Your task to perform on an android device: Search for a 3D printer on aliexpress. Image 0: 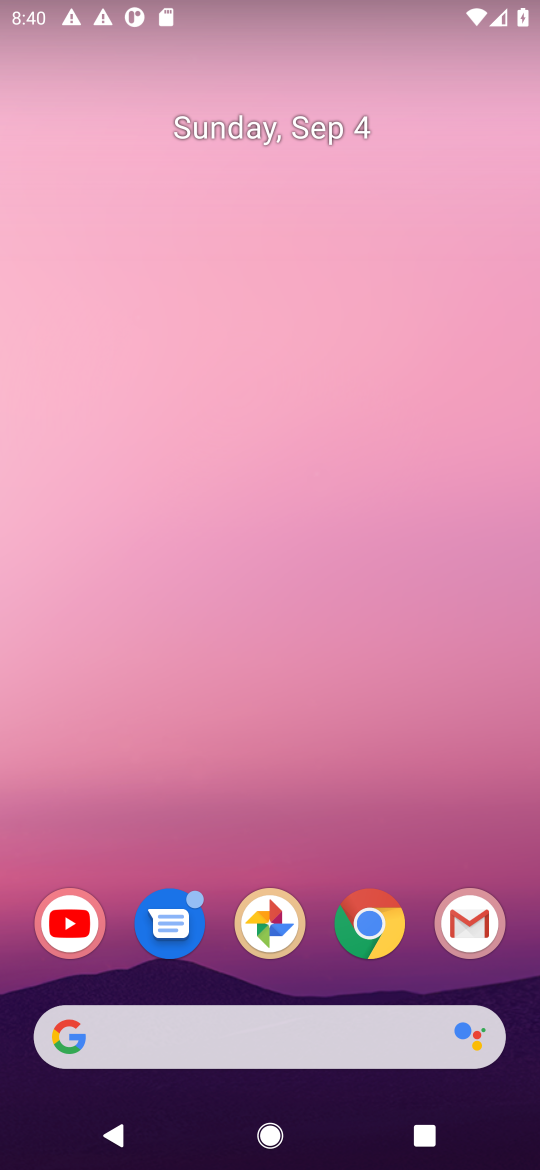
Step 0: click (385, 908)
Your task to perform on an android device: Search for a 3D printer on aliexpress. Image 1: 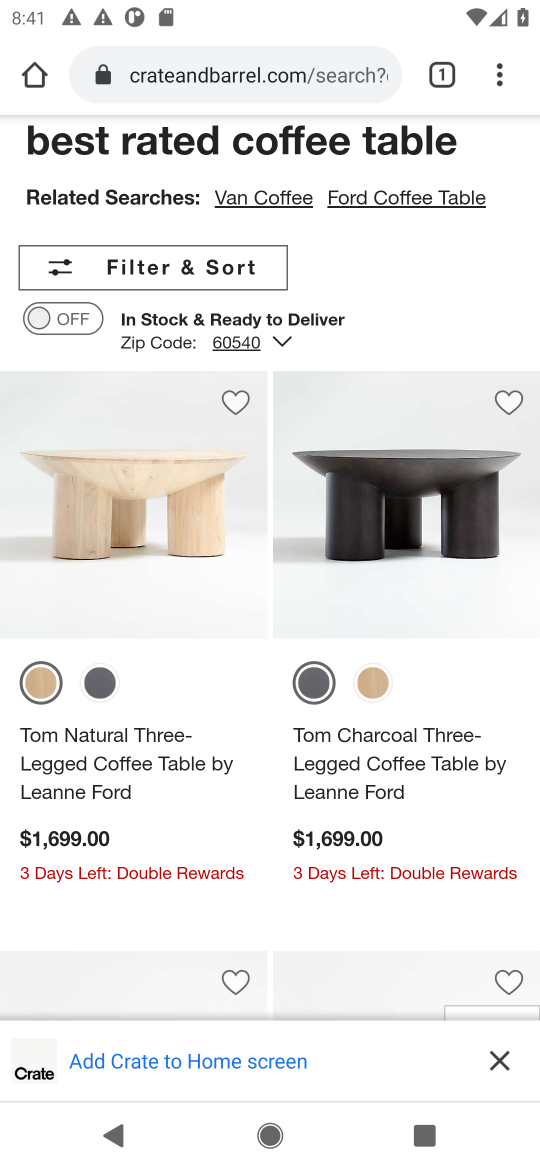
Step 1: click (272, 56)
Your task to perform on an android device: Search for a 3D printer on aliexpress. Image 2: 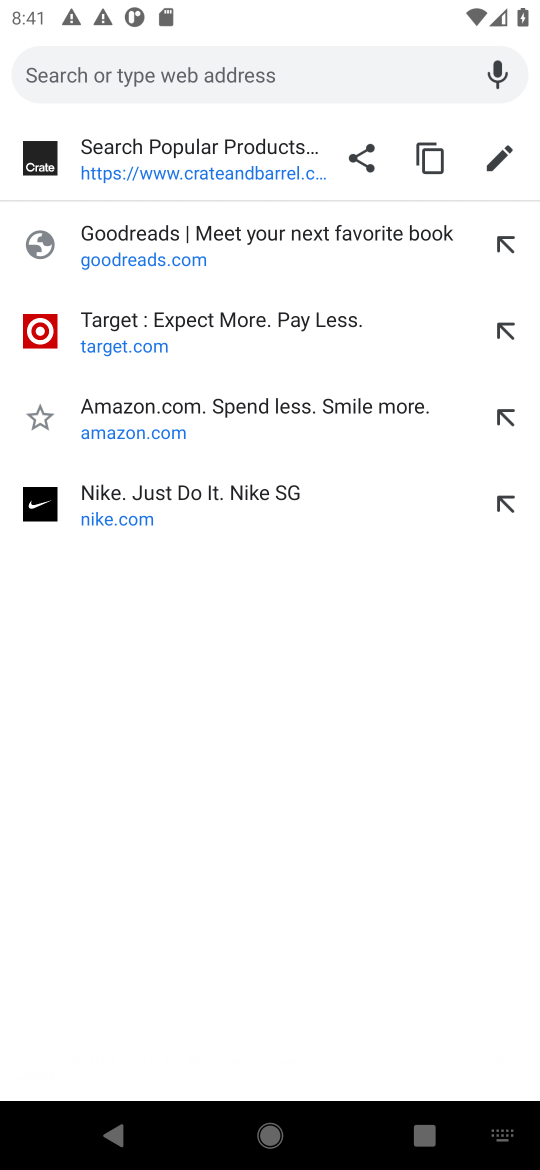
Step 2: type "aliexpress"
Your task to perform on an android device: Search for a 3D printer on aliexpress. Image 3: 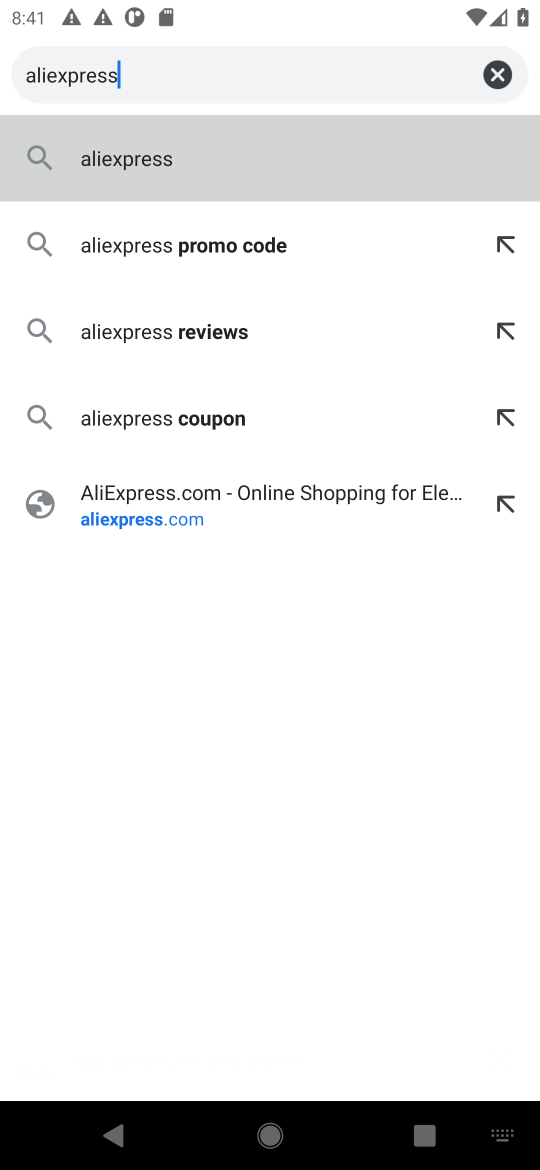
Step 3: click (215, 505)
Your task to perform on an android device: Search for a 3D printer on aliexpress. Image 4: 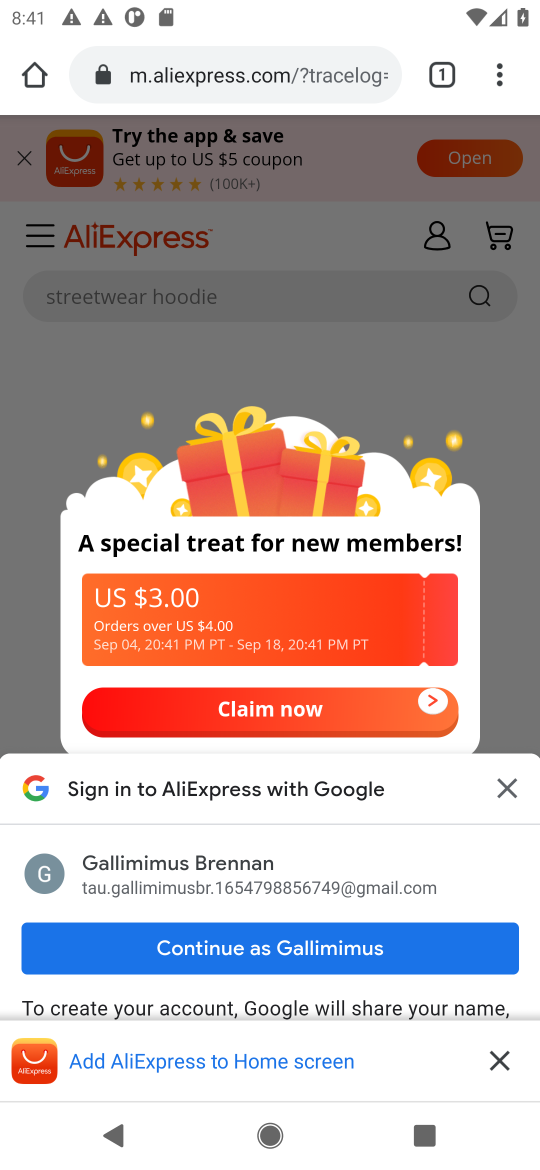
Step 4: click (323, 943)
Your task to perform on an android device: Search for a 3D printer on aliexpress. Image 5: 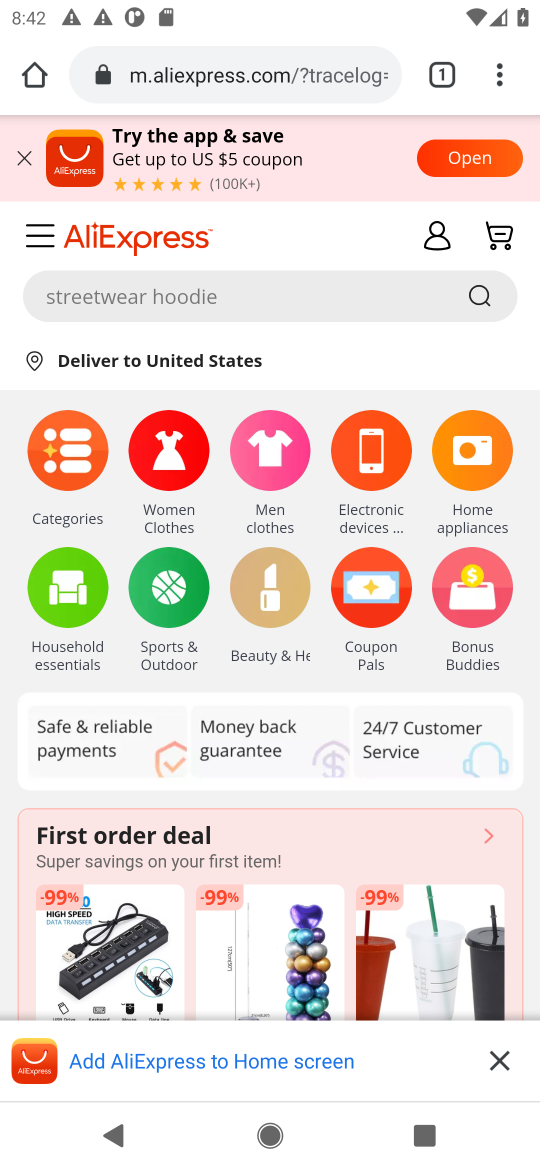
Step 5: click (472, 298)
Your task to perform on an android device: Search for a 3D printer on aliexpress. Image 6: 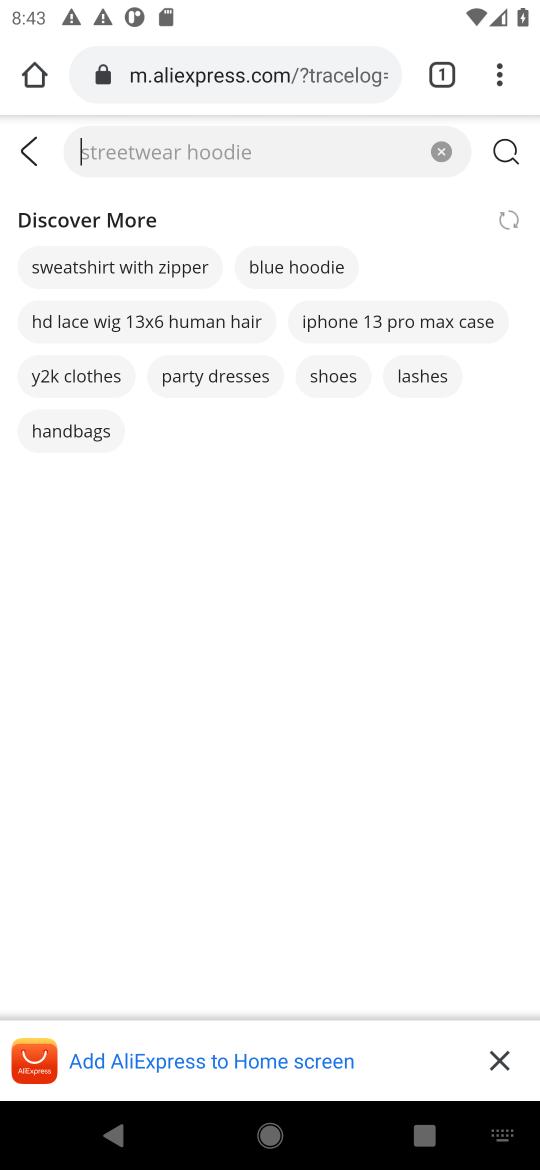
Step 6: type "3d printer"
Your task to perform on an android device: Search for a 3D printer on aliexpress. Image 7: 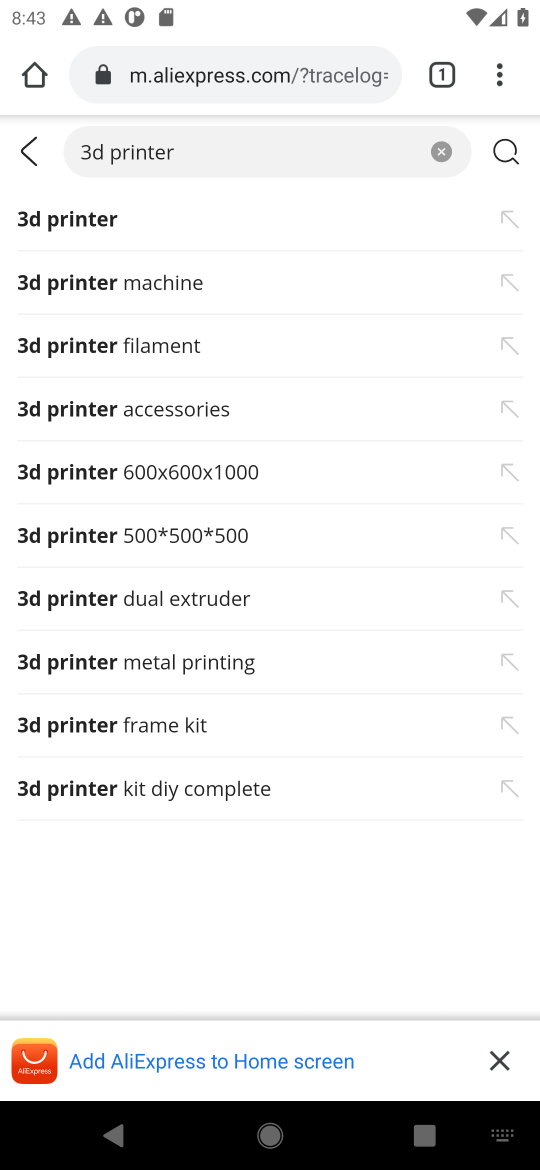
Step 7: click (204, 211)
Your task to perform on an android device: Search for a 3D printer on aliexpress. Image 8: 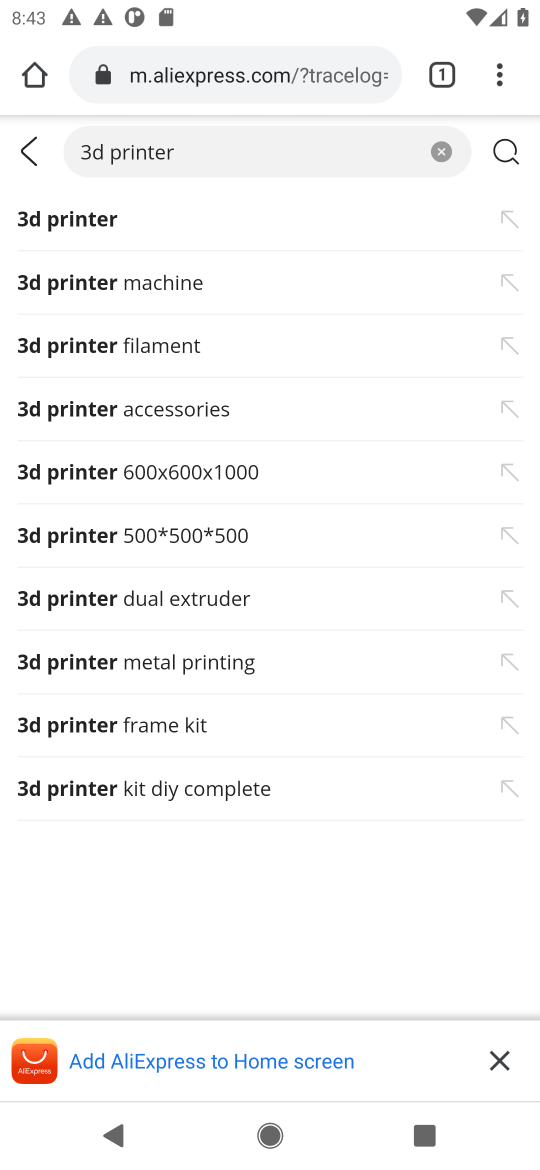
Step 8: click (118, 207)
Your task to perform on an android device: Search for a 3D printer on aliexpress. Image 9: 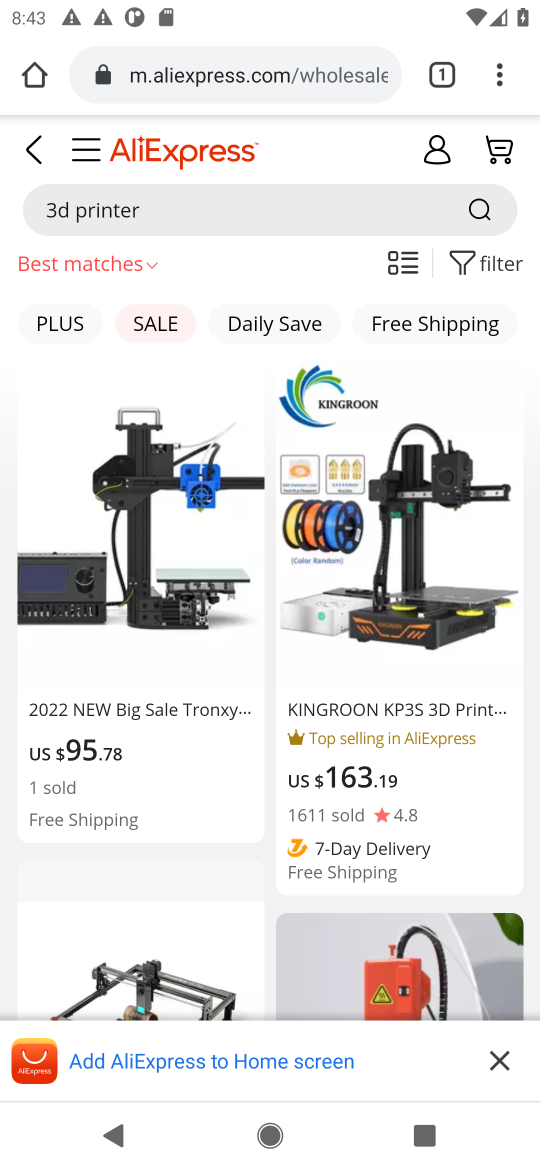
Step 9: task complete